Your task to perform on an android device: Go to sound settings Image 0: 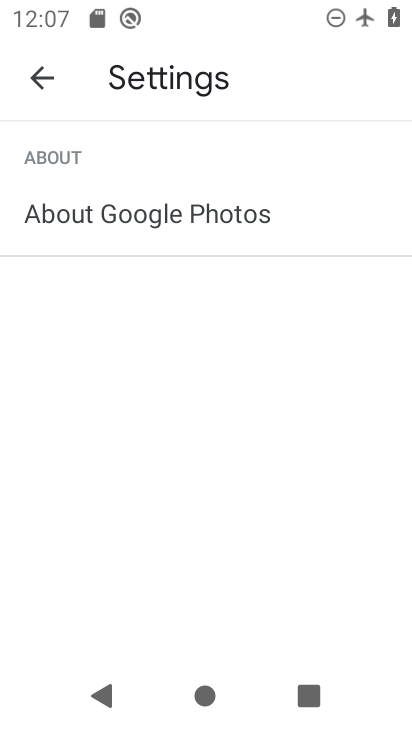
Step 0: press home button
Your task to perform on an android device: Go to sound settings Image 1: 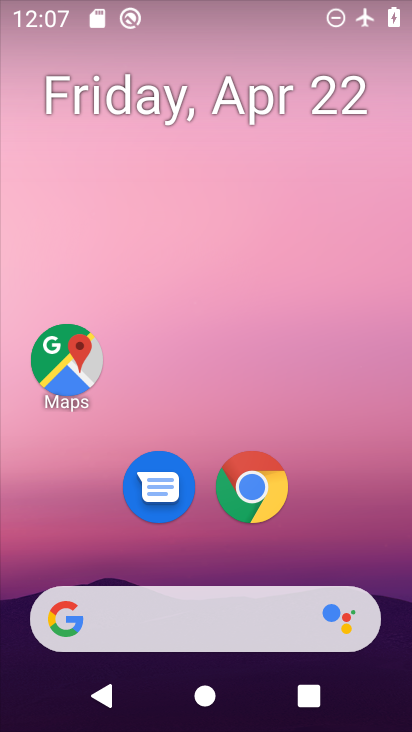
Step 1: drag from (309, 419) to (297, 136)
Your task to perform on an android device: Go to sound settings Image 2: 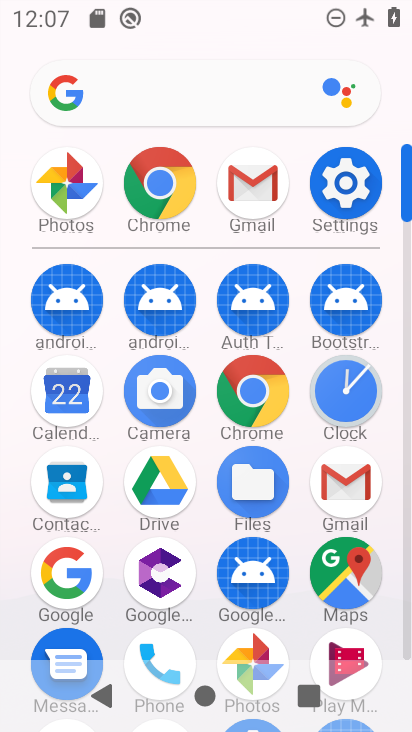
Step 2: drag from (302, 602) to (301, 217)
Your task to perform on an android device: Go to sound settings Image 3: 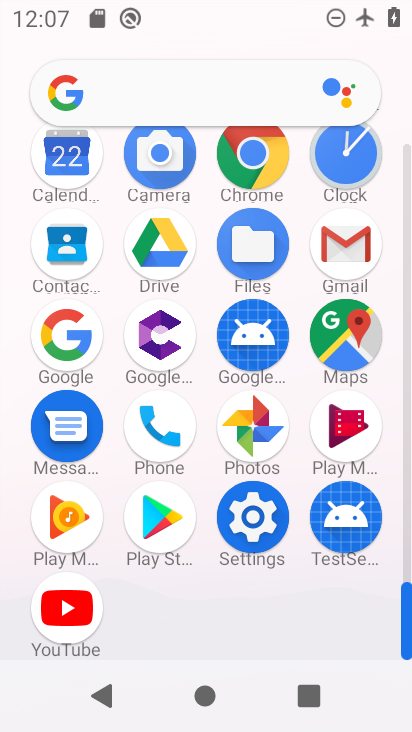
Step 3: click (252, 512)
Your task to perform on an android device: Go to sound settings Image 4: 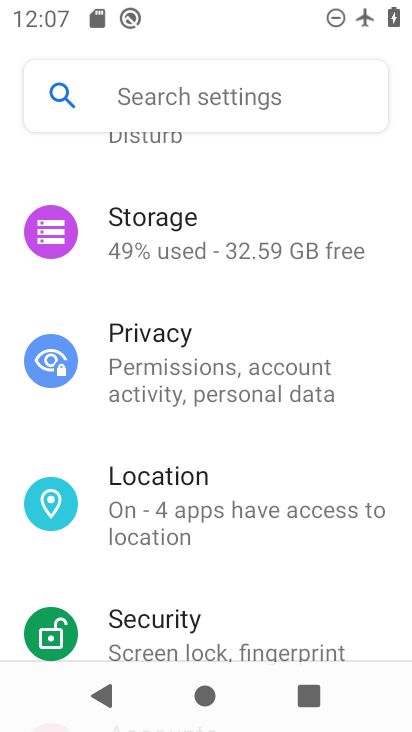
Step 4: drag from (243, 585) to (262, 645)
Your task to perform on an android device: Go to sound settings Image 5: 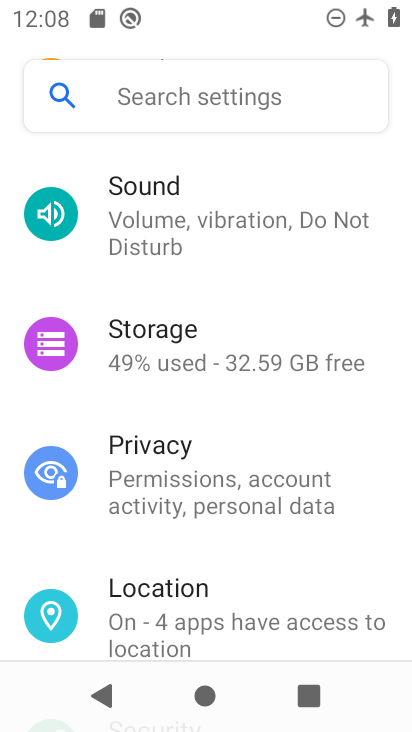
Step 5: click (237, 221)
Your task to perform on an android device: Go to sound settings Image 6: 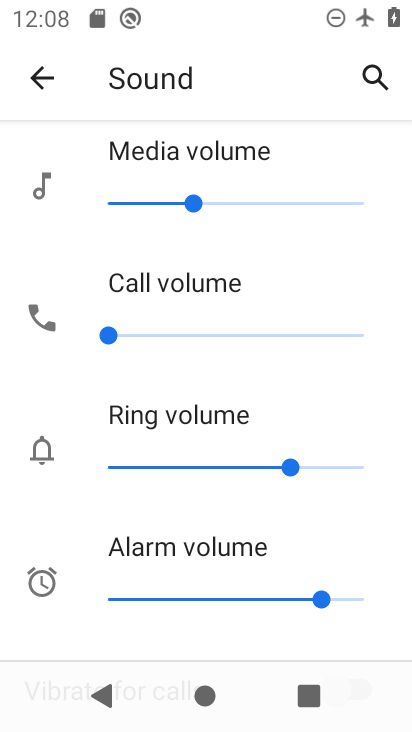
Step 6: task complete